Your task to perform on an android device: Search for usb-c to usb-b on newegg.com, select the first entry, add it to the cart, then select checkout. Image 0: 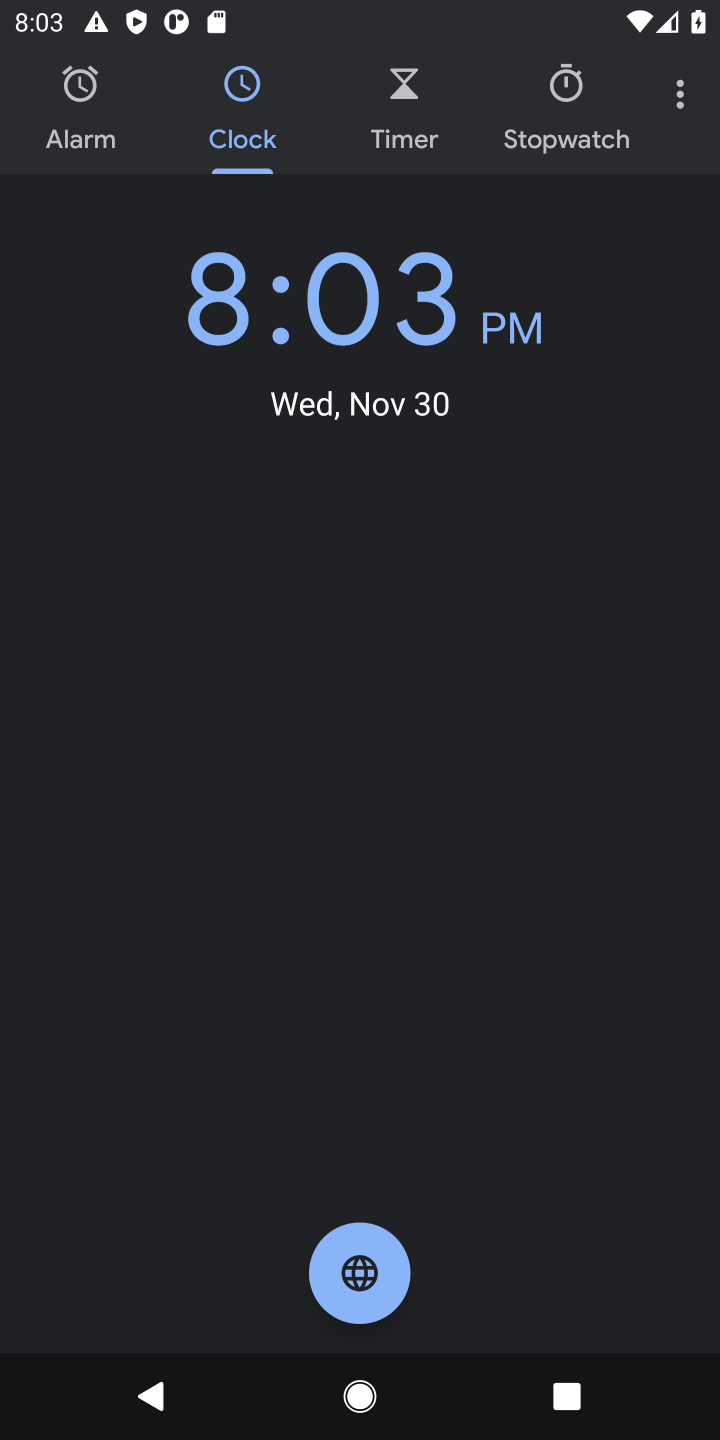
Step 0: press home button
Your task to perform on an android device: Search for usb-c to usb-b on newegg.com, select the first entry, add it to the cart, then select checkout. Image 1: 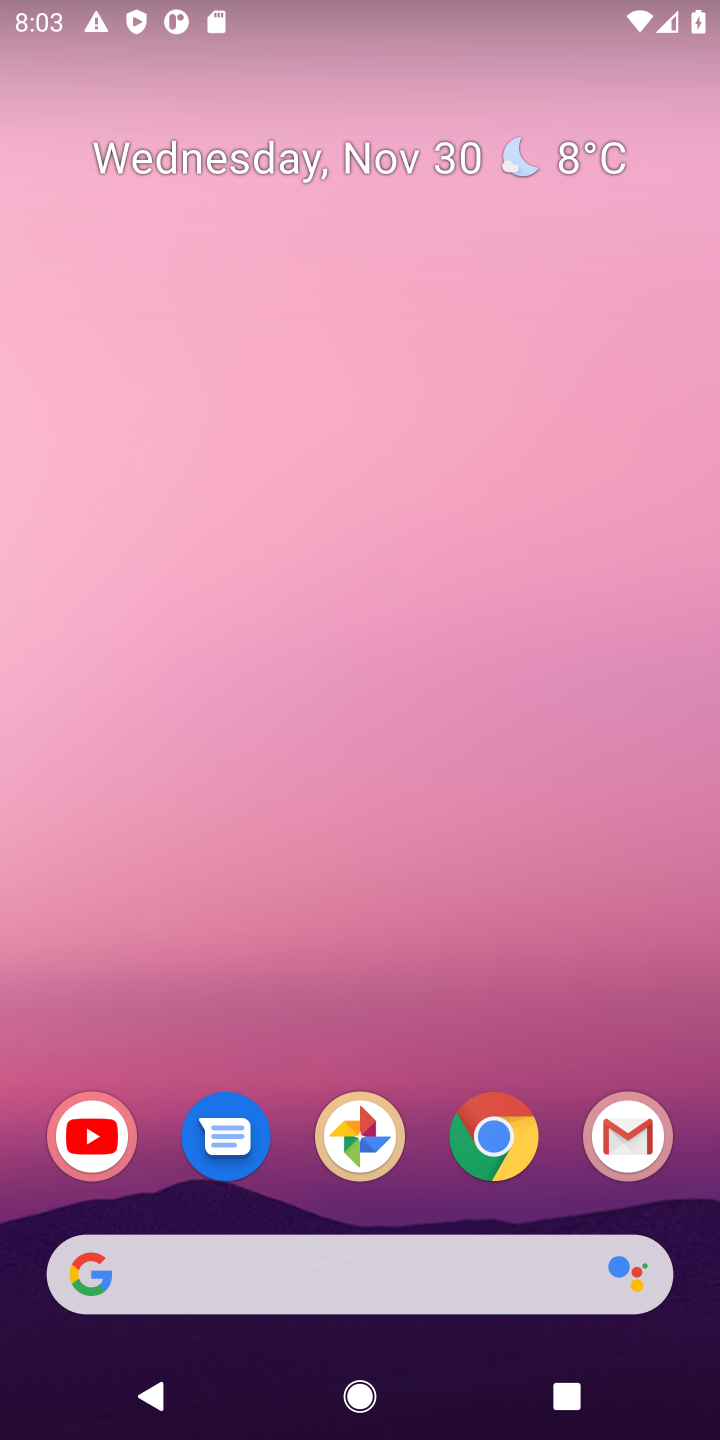
Step 1: click (484, 1140)
Your task to perform on an android device: Search for usb-c to usb-b on newegg.com, select the first entry, add it to the cart, then select checkout. Image 2: 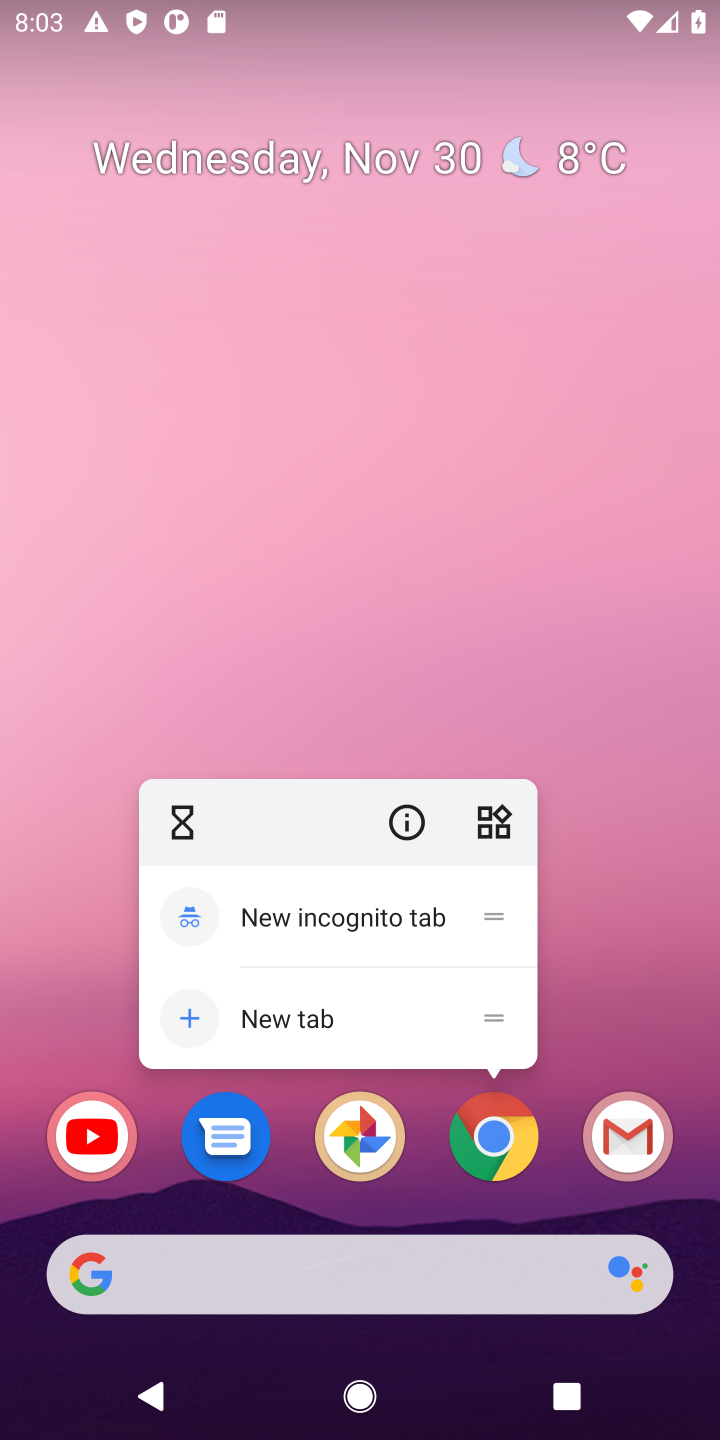
Step 2: click (488, 1144)
Your task to perform on an android device: Search for usb-c to usb-b on newegg.com, select the first entry, add it to the cart, then select checkout. Image 3: 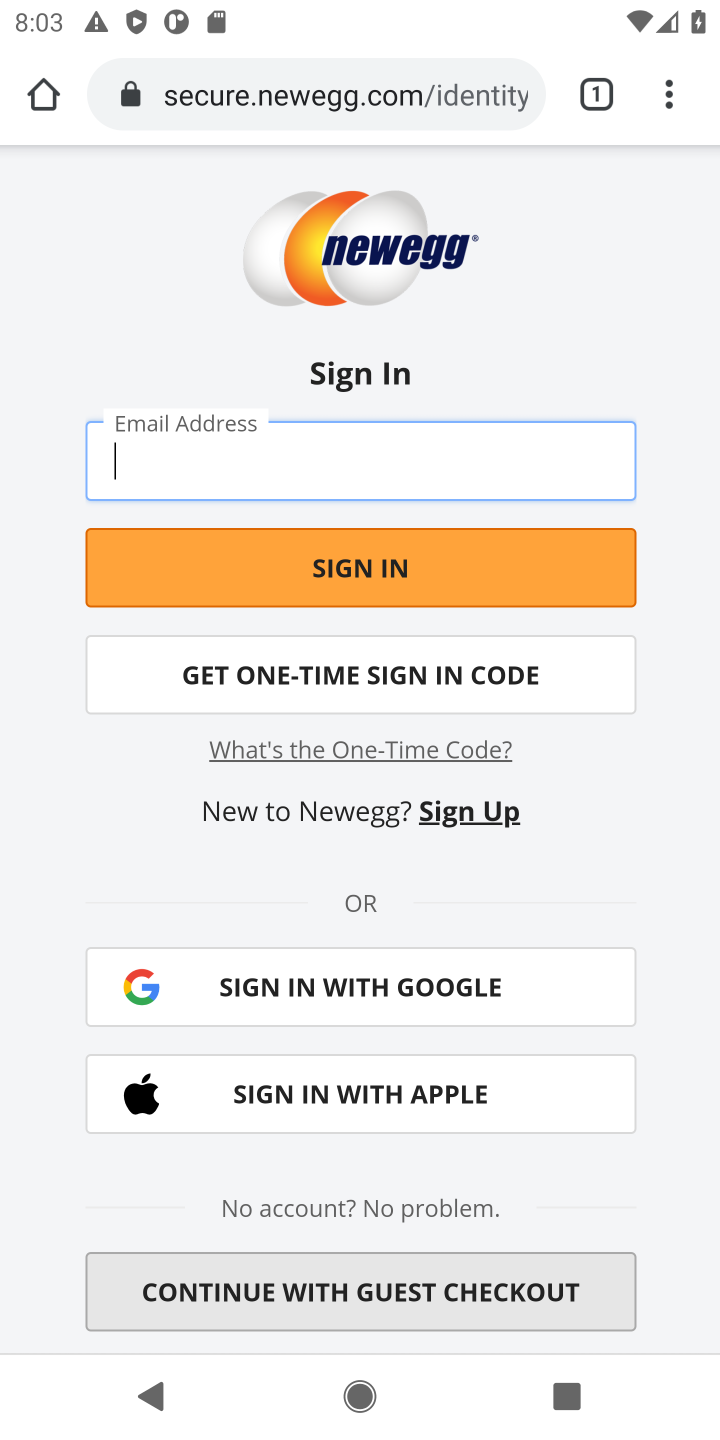
Step 3: press back button
Your task to perform on an android device: Search for usb-c to usb-b on newegg.com, select the first entry, add it to the cart, then select checkout. Image 4: 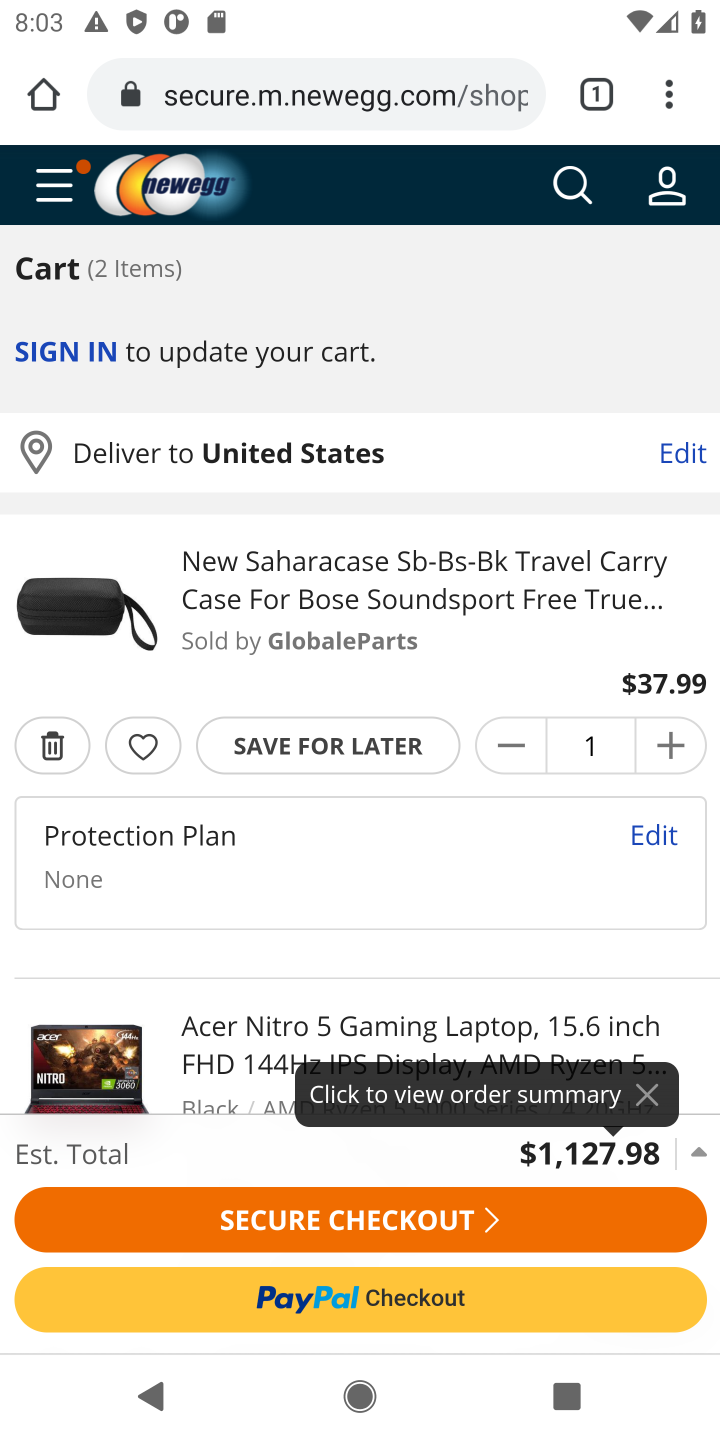
Step 4: click (563, 184)
Your task to perform on an android device: Search for usb-c to usb-b on newegg.com, select the first entry, add it to the cart, then select checkout. Image 5: 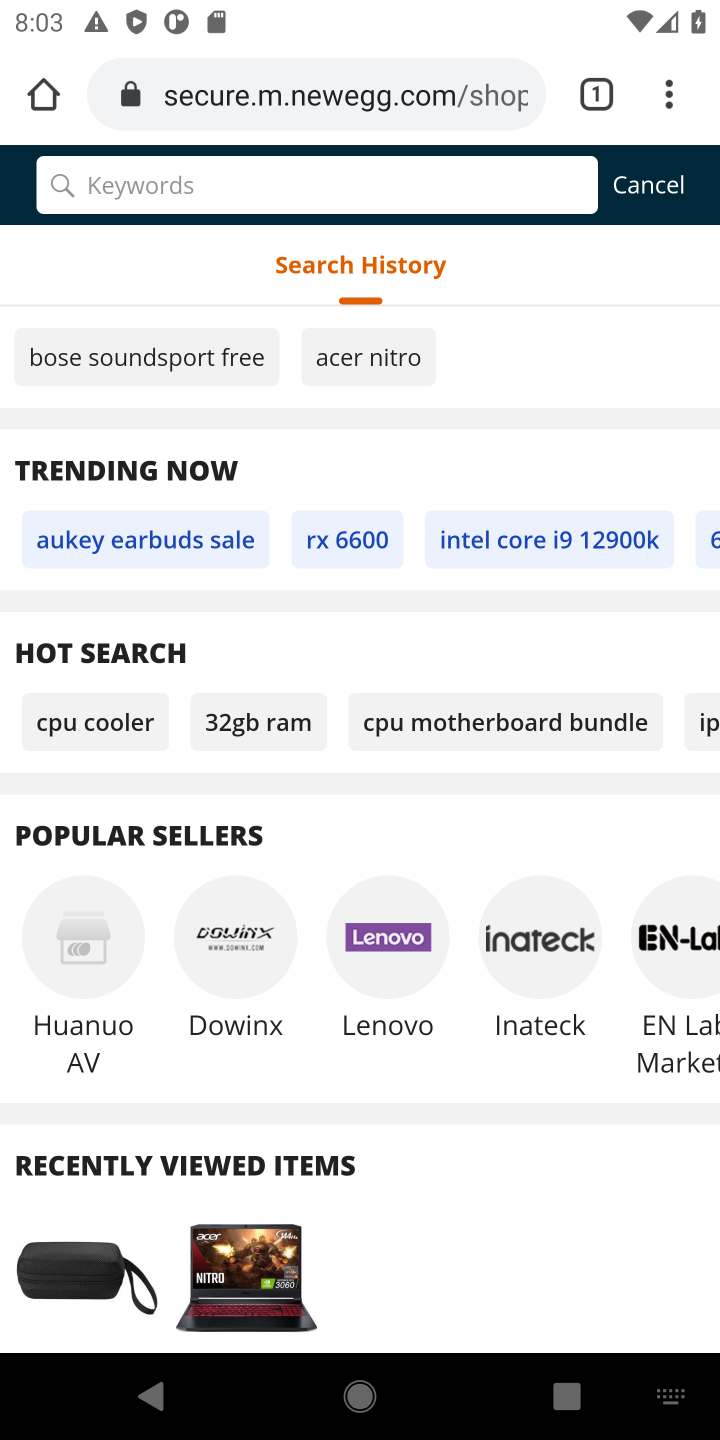
Step 5: type "usb-c to usb-b"
Your task to perform on an android device: Search for usb-c to usb-b on newegg.com, select the first entry, add it to the cart, then select checkout. Image 6: 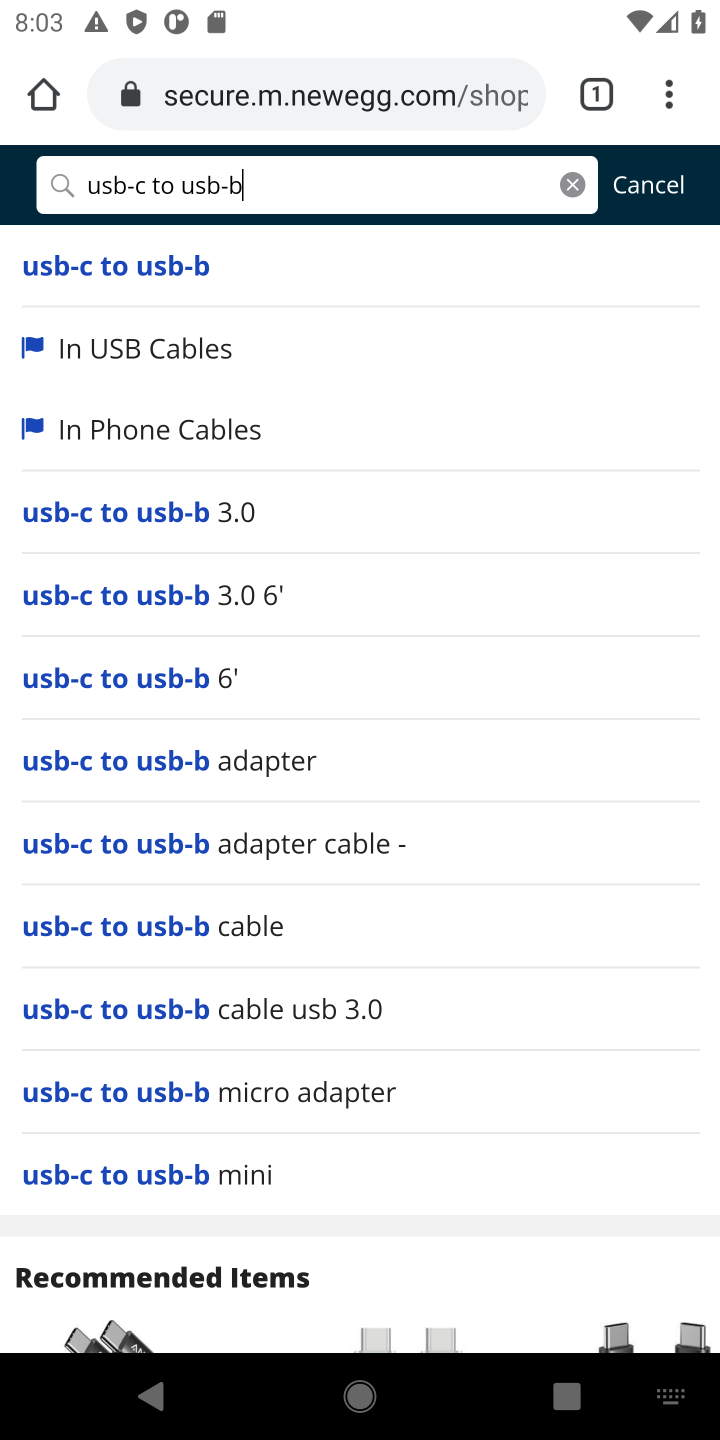
Step 6: click (131, 265)
Your task to perform on an android device: Search for usb-c to usb-b on newegg.com, select the first entry, add it to the cart, then select checkout. Image 7: 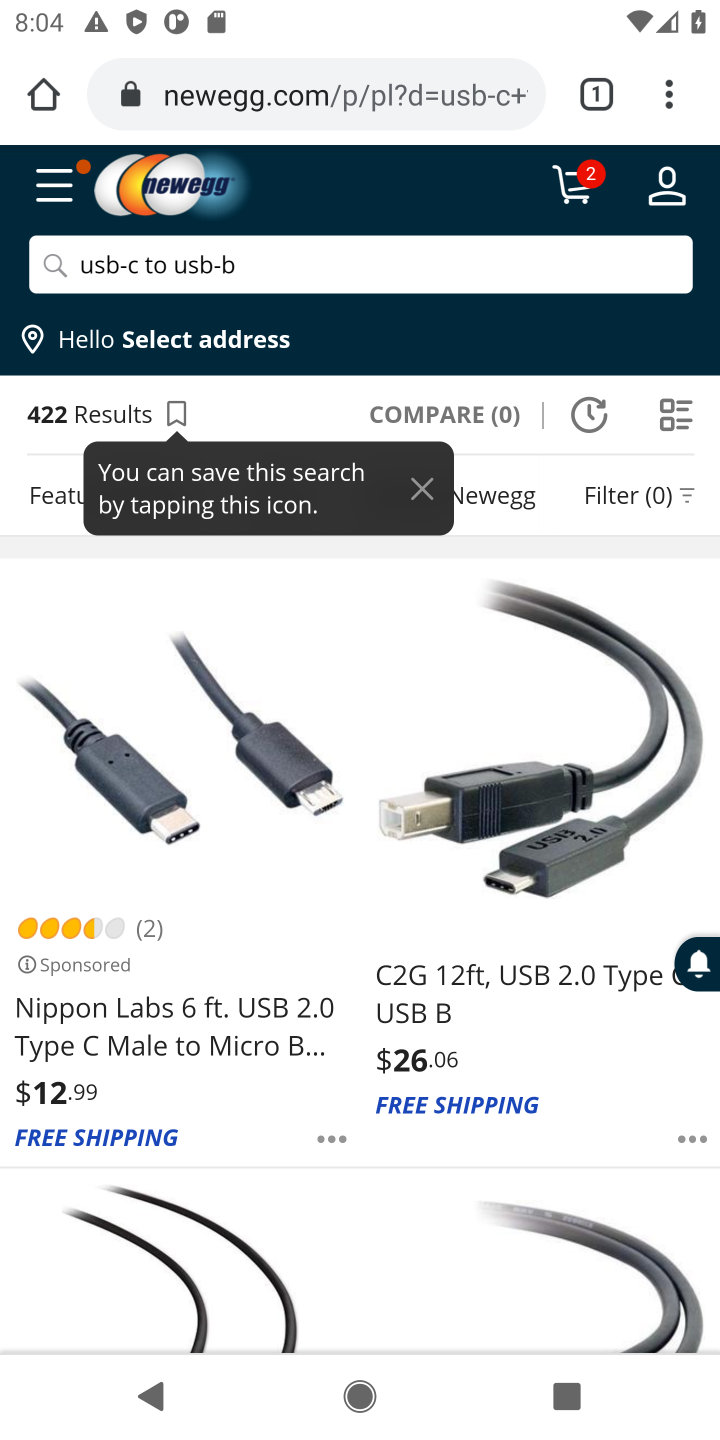
Step 7: click (150, 811)
Your task to perform on an android device: Search for usb-c to usb-b on newegg.com, select the first entry, add it to the cart, then select checkout. Image 8: 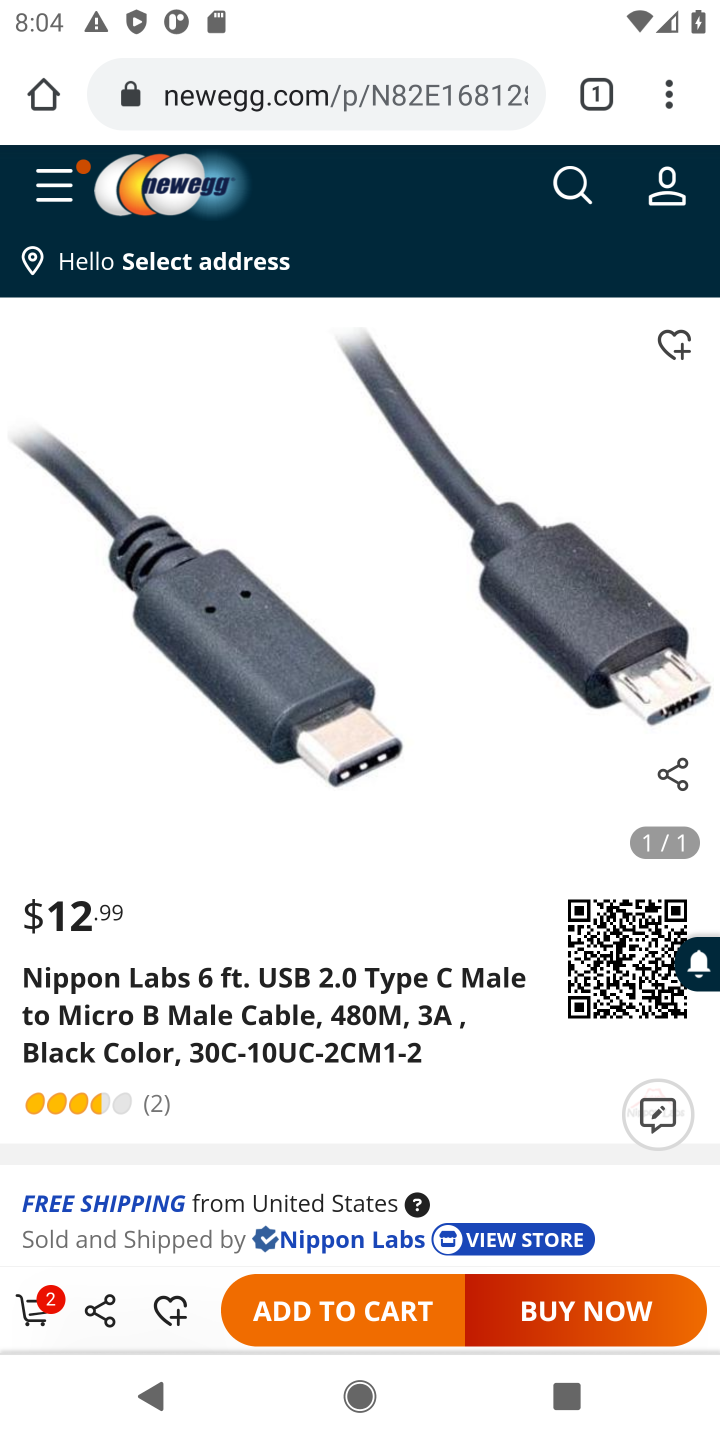
Step 8: task complete